Your task to perform on an android device: Clear the cart on ebay.com. Search for jbl flip 4 on ebay.com, select the first entry, add it to the cart, then select checkout. Image 0: 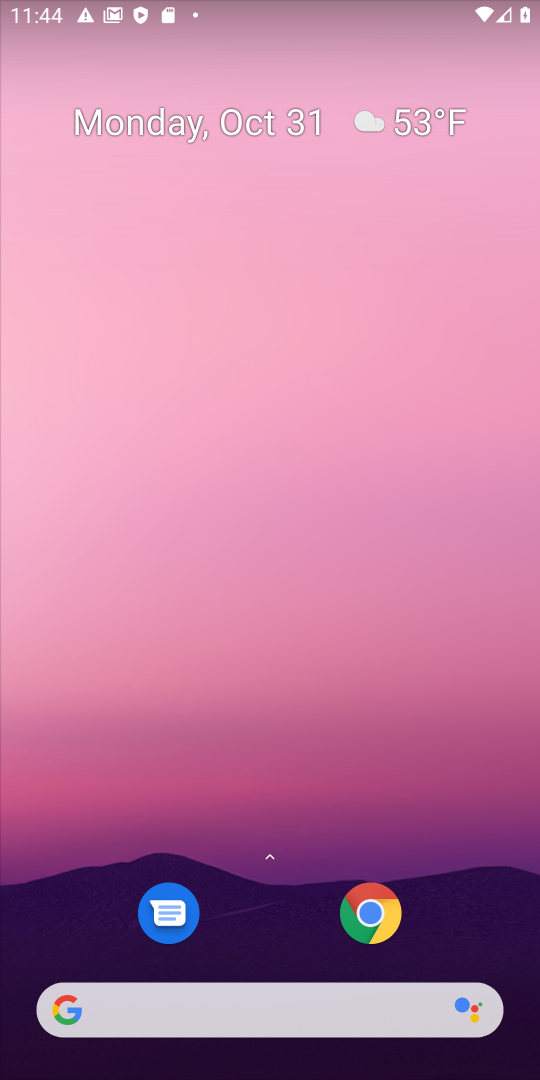
Step 0: click (184, 996)
Your task to perform on an android device: Clear the cart on ebay.com. Search for jbl flip 4 on ebay.com, select the first entry, add it to the cart, then select checkout. Image 1: 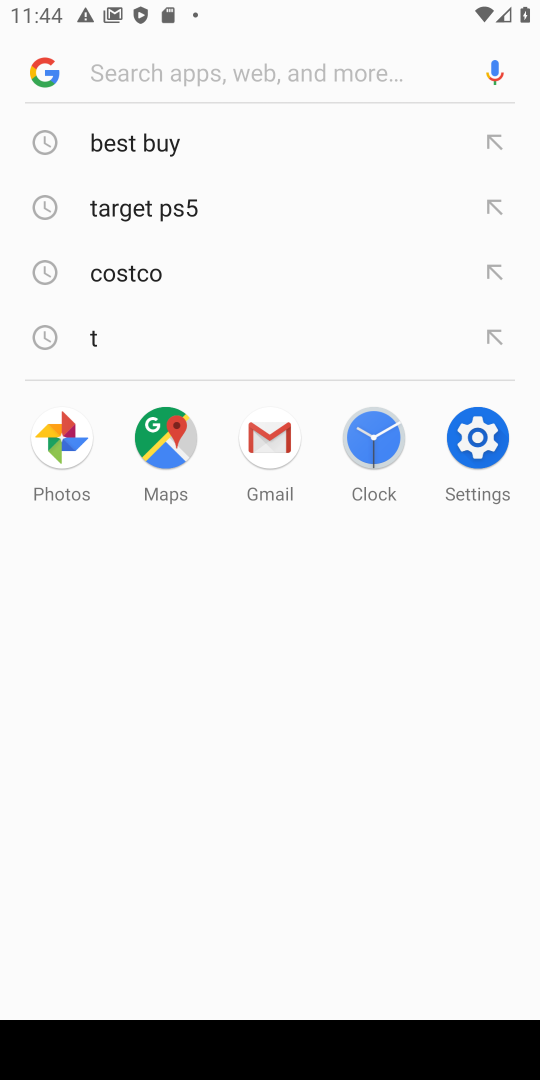
Step 1: type "ebay.com"
Your task to perform on an android device: Clear the cart on ebay.com. Search for jbl flip 4 on ebay.com, select the first entry, add it to the cart, then select checkout. Image 2: 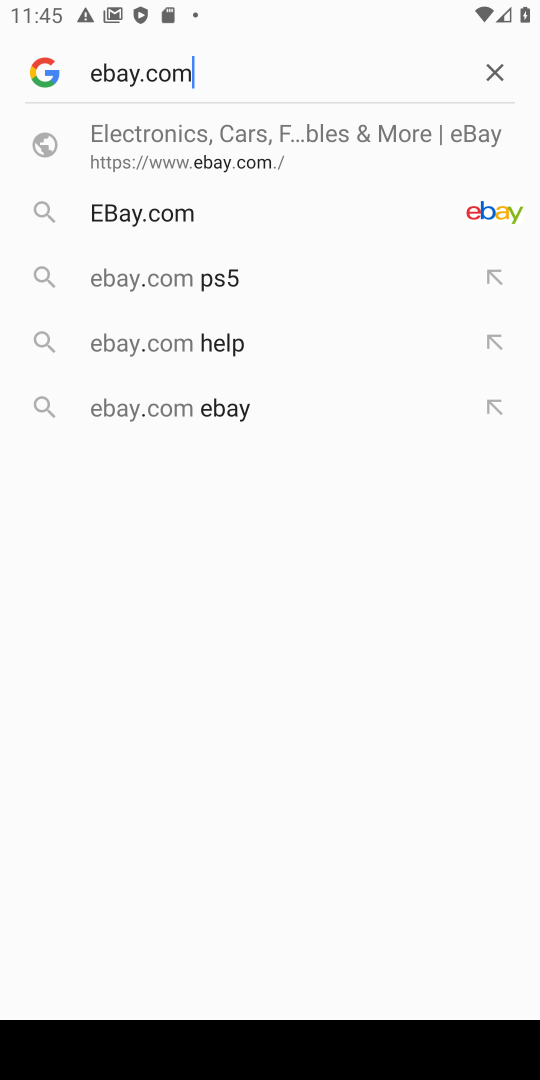
Step 2: click (189, 142)
Your task to perform on an android device: Clear the cart on ebay.com. Search for jbl flip 4 on ebay.com, select the first entry, add it to the cart, then select checkout. Image 3: 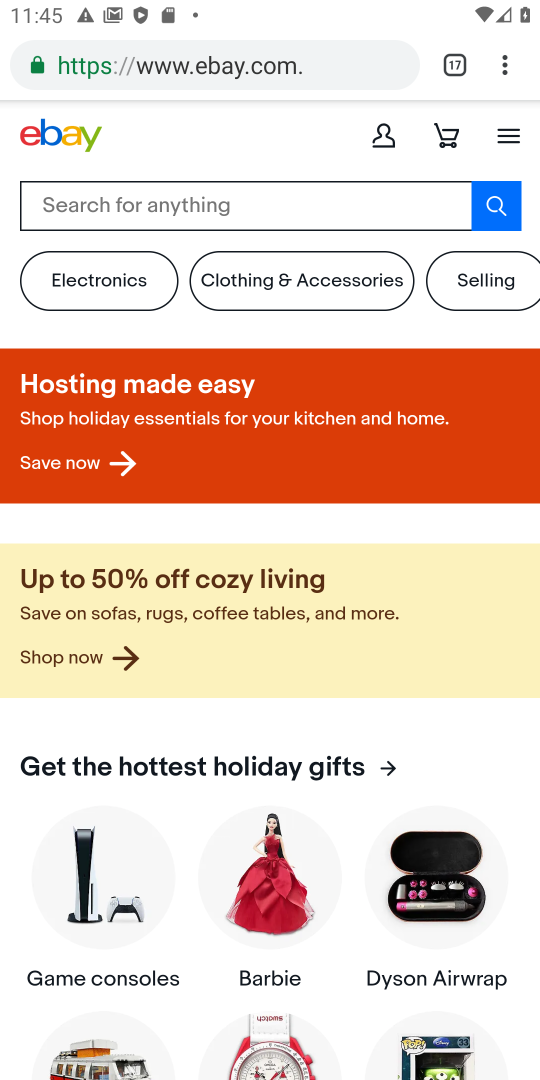
Step 3: click (197, 181)
Your task to perform on an android device: Clear the cart on ebay.com. Search for jbl flip 4 on ebay.com, select the first entry, add it to the cart, then select checkout. Image 4: 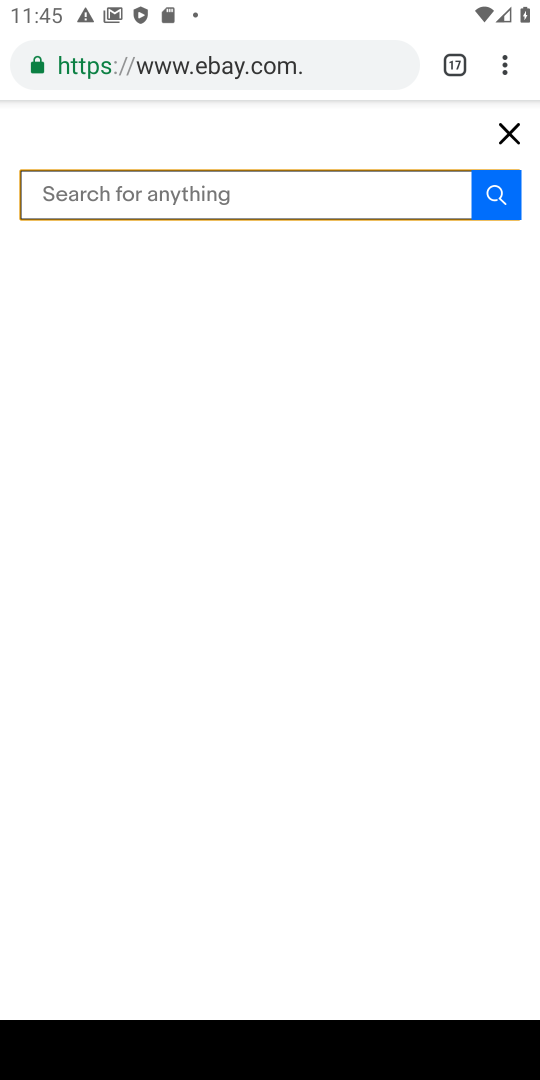
Step 4: type "jbl filp 4"
Your task to perform on an android device: Clear the cart on ebay.com. Search for jbl flip 4 on ebay.com, select the first entry, add it to the cart, then select checkout. Image 5: 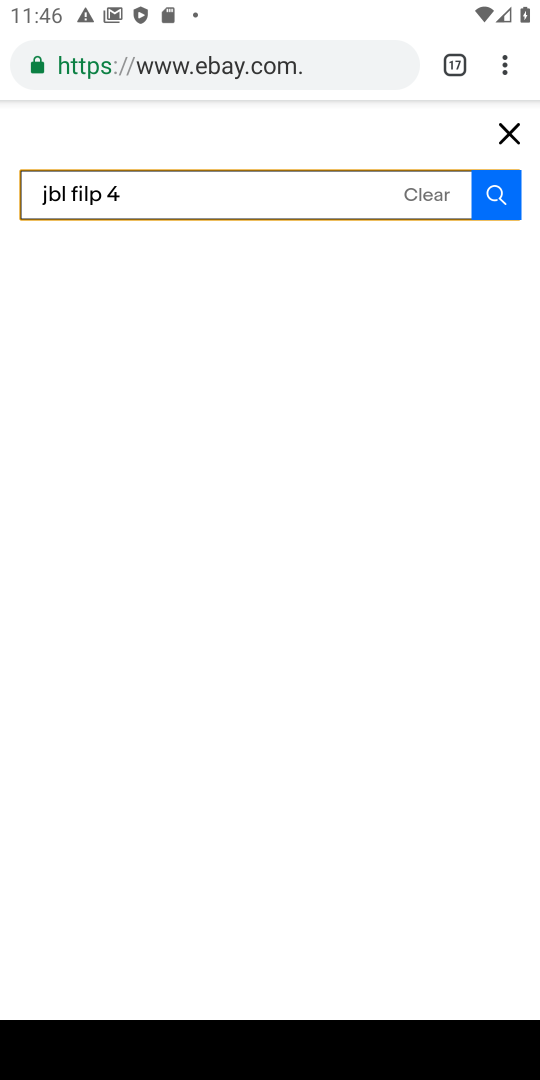
Step 5: click (482, 192)
Your task to perform on an android device: Clear the cart on ebay.com. Search for jbl flip 4 on ebay.com, select the first entry, add it to the cart, then select checkout. Image 6: 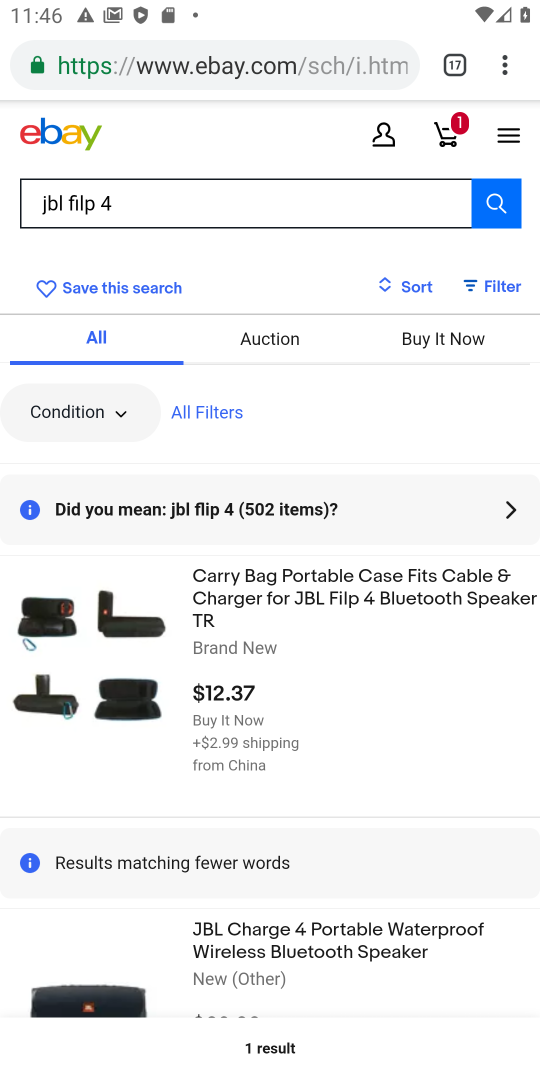
Step 6: click (292, 563)
Your task to perform on an android device: Clear the cart on ebay.com. Search for jbl flip 4 on ebay.com, select the first entry, add it to the cart, then select checkout. Image 7: 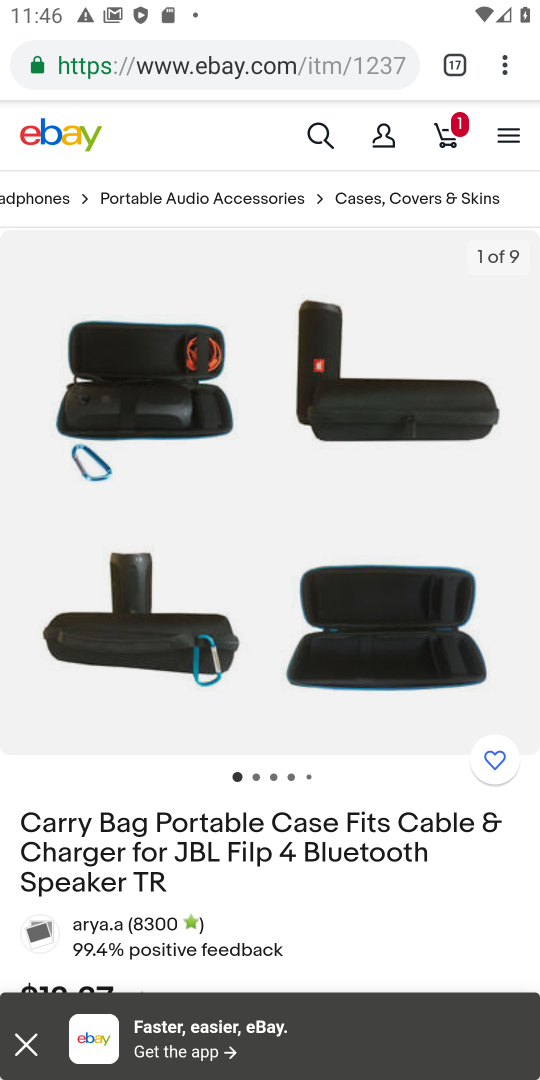
Step 7: task complete